Your task to perform on an android device: Check the news Image 0: 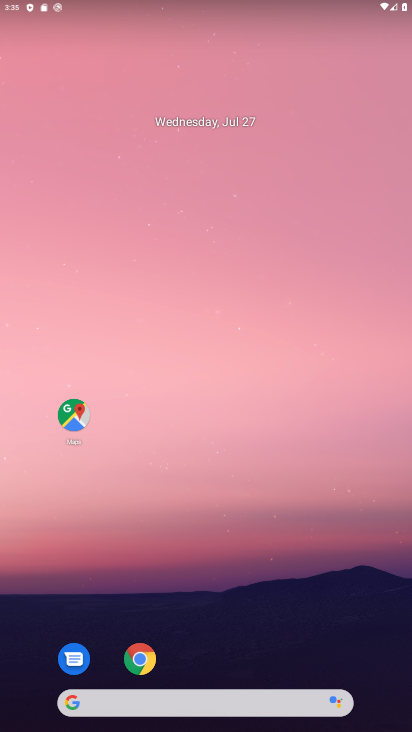
Step 0: click (259, 693)
Your task to perform on an android device: Check the news Image 1: 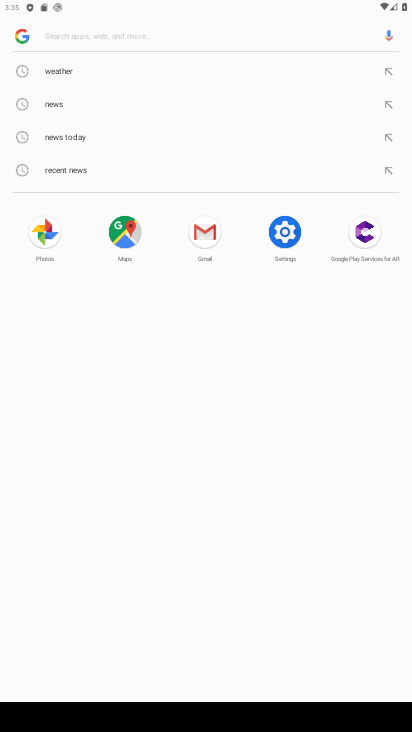
Step 1: type "news"
Your task to perform on an android device: Check the news Image 2: 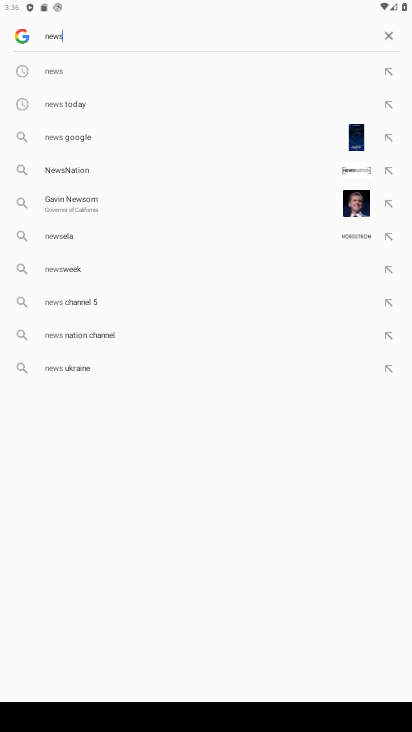
Step 2: click (108, 70)
Your task to perform on an android device: Check the news Image 3: 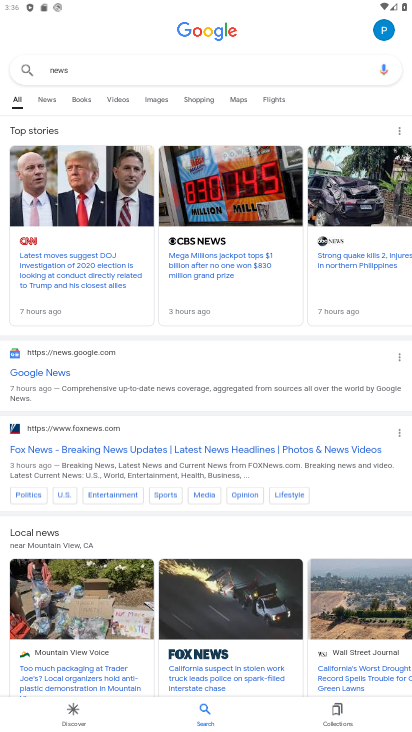
Step 3: click (42, 102)
Your task to perform on an android device: Check the news Image 4: 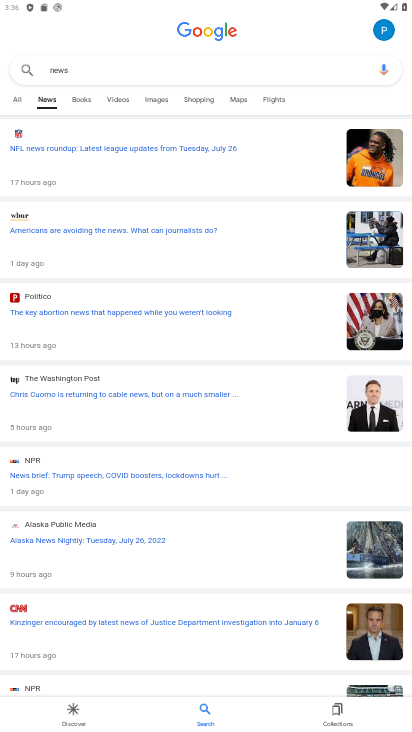
Step 4: task complete